Your task to perform on an android device: Open calendar and show me the first week of next month Image 0: 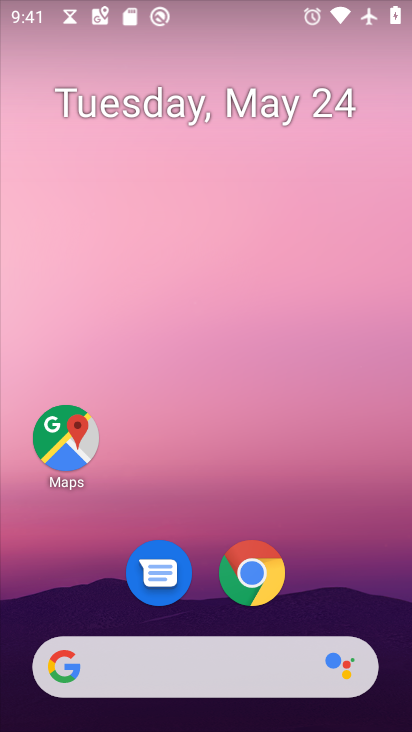
Step 0: drag from (345, 581) to (268, 44)
Your task to perform on an android device: Open calendar and show me the first week of next month Image 1: 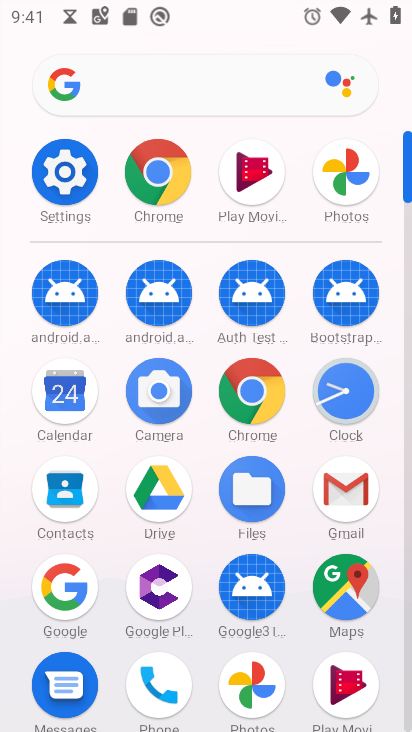
Step 1: click (65, 389)
Your task to perform on an android device: Open calendar and show me the first week of next month Image 2: 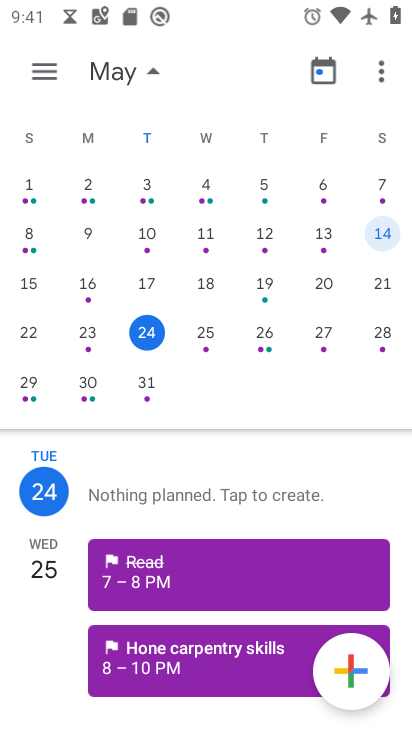
Step 2: drag from (316, 293) to (277, 709)
Your task to perform on an android device: Open calendar and show me the first week of next month Image 3: 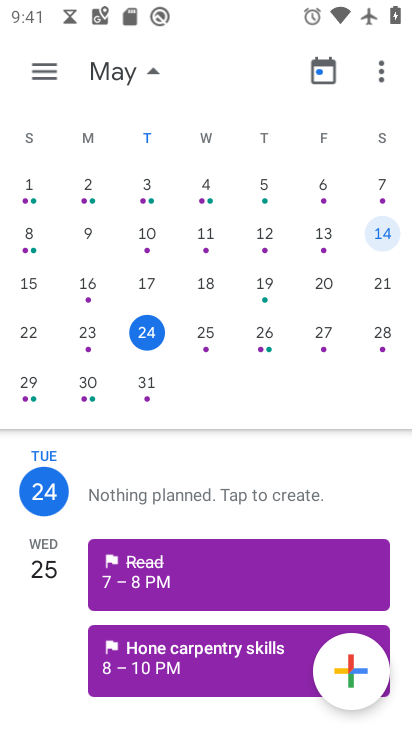
Step 3: click (382, 187)
Your task to perform on an android device: Open calendar and show me the first week of next month Image 4: 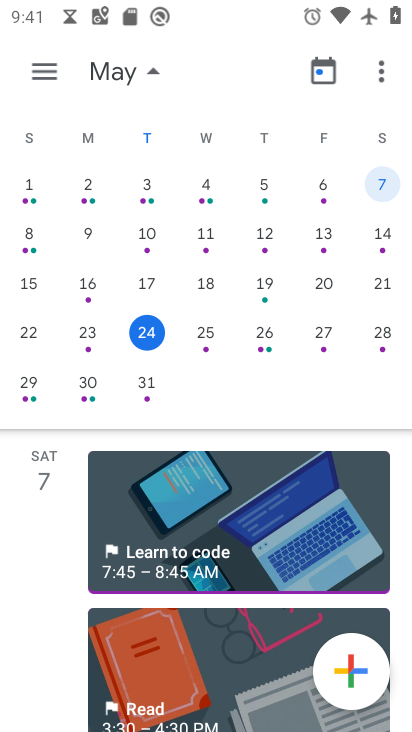
Step 4: task complete